Your task to perform on an android device: turn on priority inbox in the gmail app Image 0: 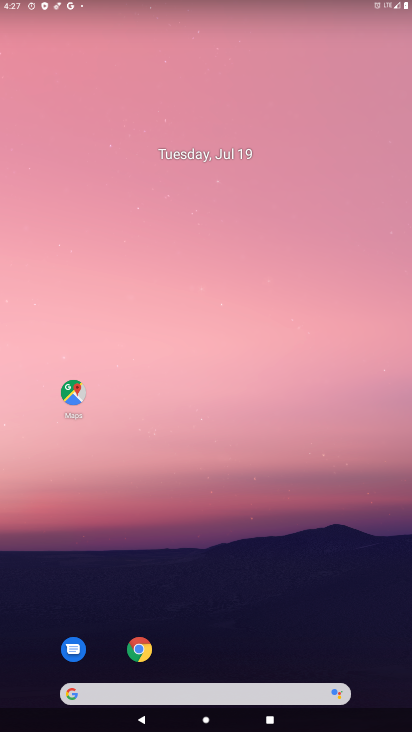
Step 0: drag from (268, 647) to (188, 134)
Your task to perform on an android device: turn on priority inbox in the gmail app Image 1: 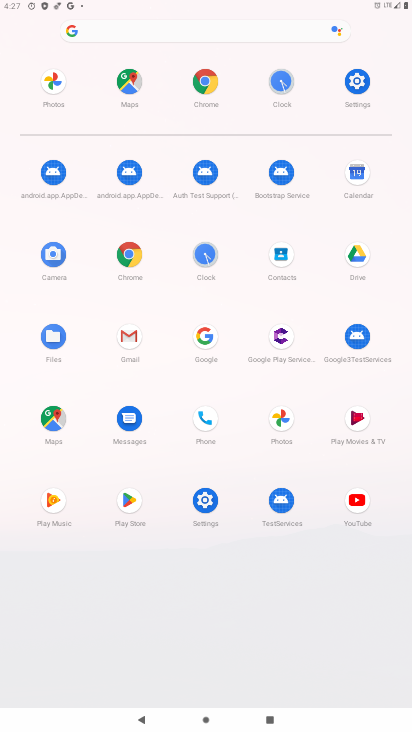
Step 1: click (133, 341)
Your task to perform on an android device: turn on priority inbox in the gmail app Image 2: 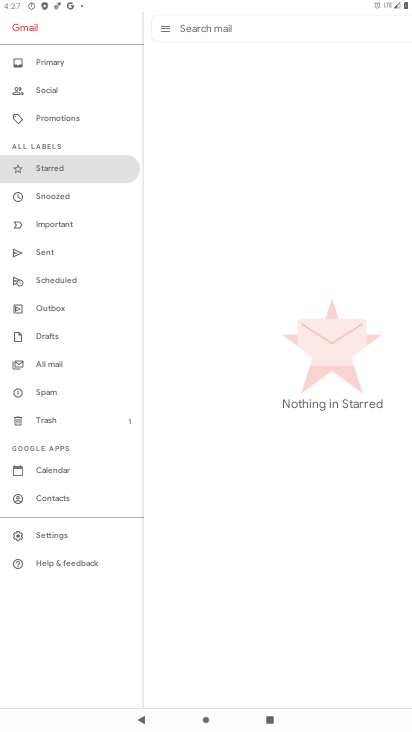
Step 2: click (55, 540)
Your task to perform on an android device: turn on priority inbox in the gmail app Image 3: 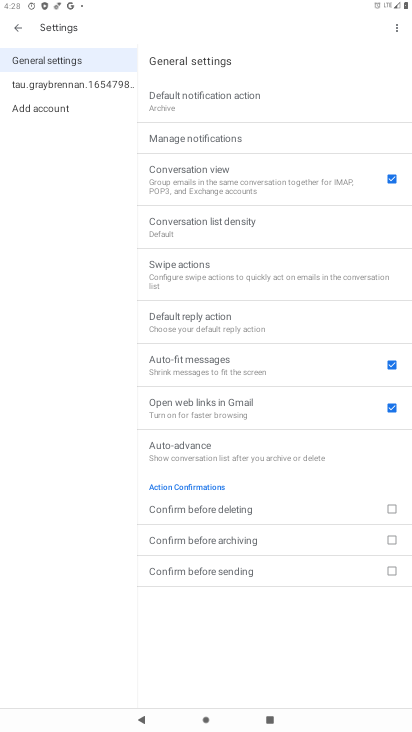
Step 3: click (99, 87)
Your task to perform on an android device: turn on priority inbox in the gmail app Image 4: 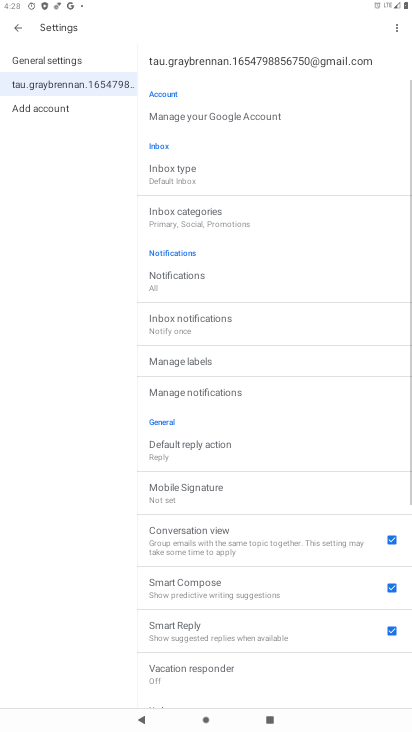
Step 4: click (195, 186)
Your task to perform on an android device: turn on priority inbox in the gmail app Image 5: 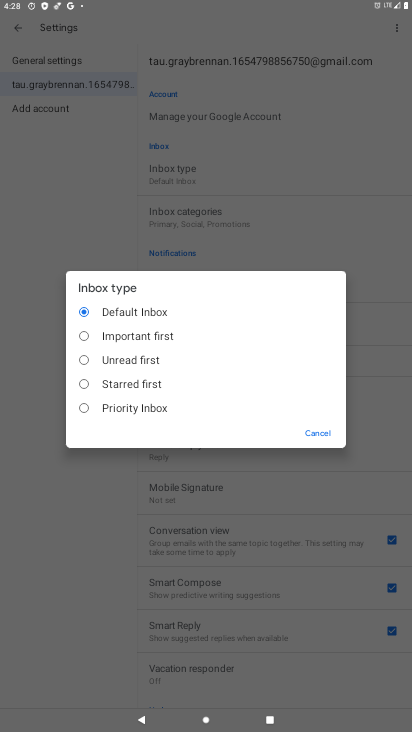
Step 5: click (131, 410)
Your task to perform on an android device: turn on priority inbox in the gmail app Image 6: 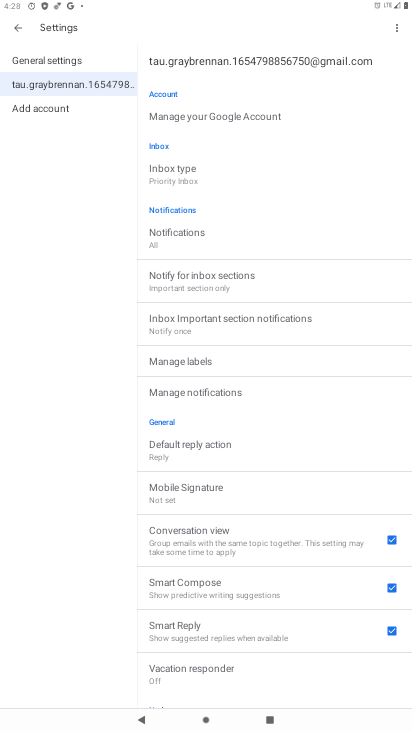
Step 6: task complete